Your task to perform on an android device: turn off airplane mode Image 0: 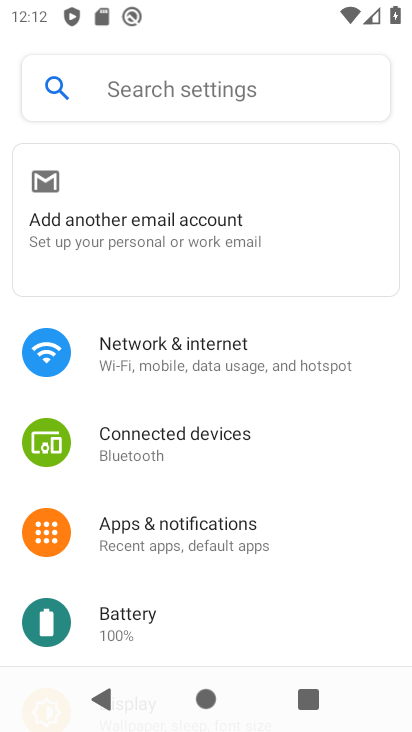
Step 0: click (242, 380)
Your task to perform on an android device: turn off airplane mode Image 1: 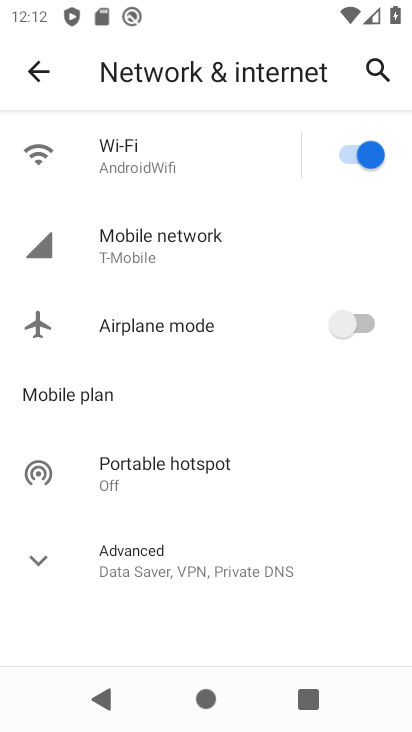
Step 1: click (57, 564)
Your task to perform on an android device: turn off airplane mode Image 2: 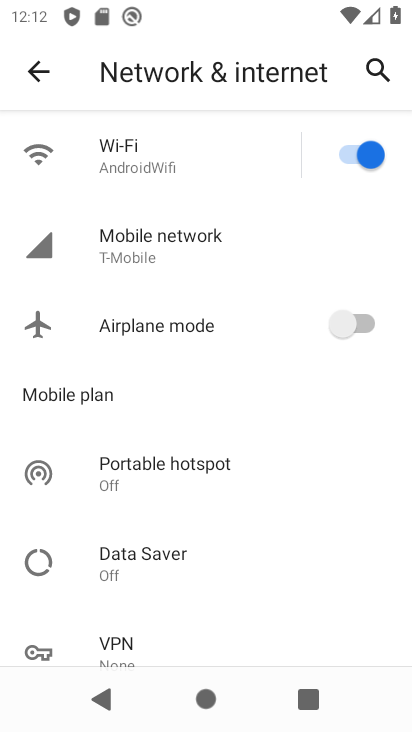
Step 2: task complete